Your task to perform on an android device: Open Google Chrome and click the shortcut for Amazon.com Image 0: 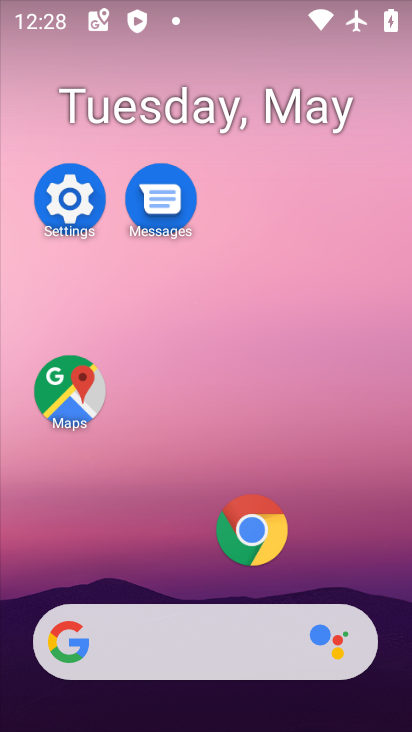
Step 0: click (253, 217)
Your task to perform on an android device: Open Google Chrome and click the shortcut for Amazon.com Image 1: 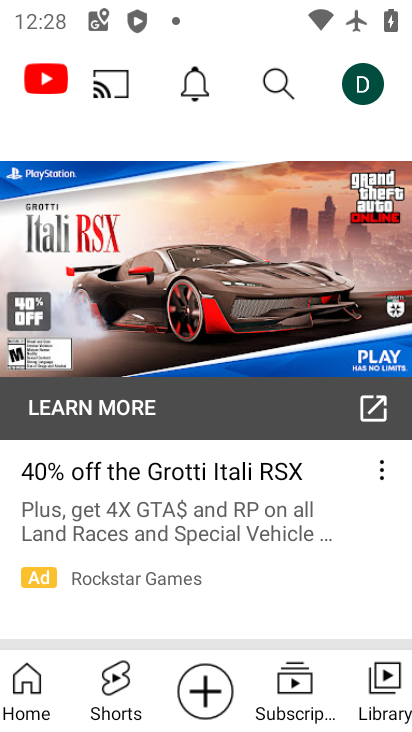
Step 1: press home button
Your task to perform on an android device: Open Google Chrome and click the shortcut for Amazon.com Image 2: 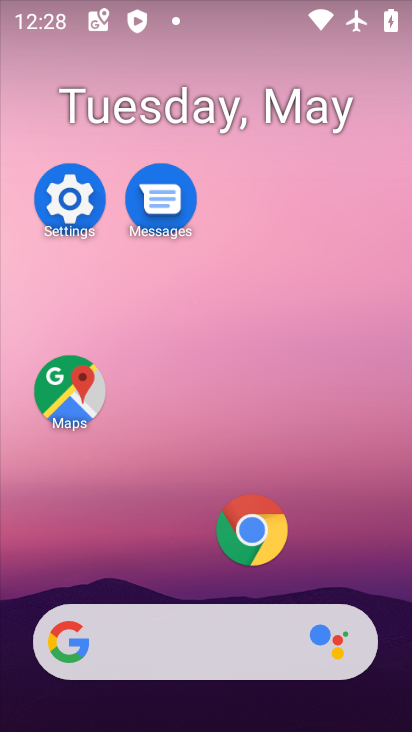
Step 2: drag from (207, 608) to (313, 166)
Your task to perform on an android device: Open Google Chrome and click the shortcut for Amazon.com Image 3: 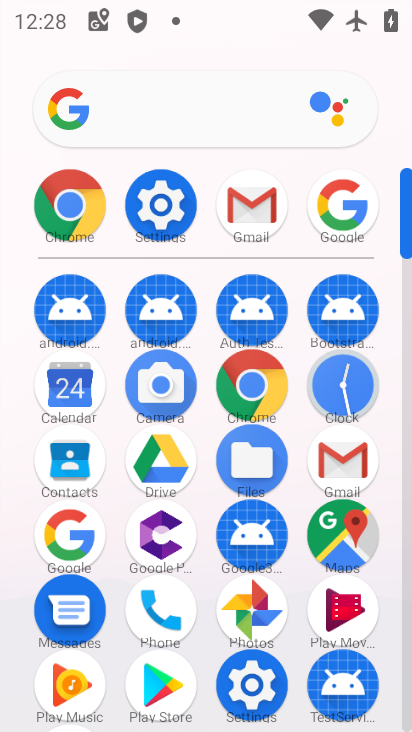
Step 3: click (277, 391)
Your task to perform on an android device: Open Google Chrome and click the shortcut for Amazon.com Image 4: 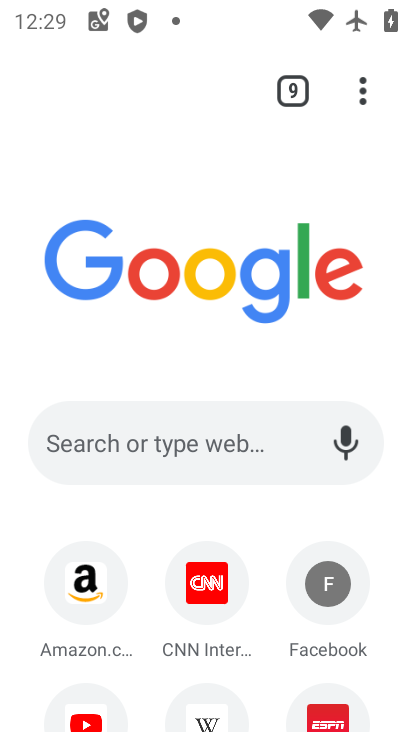
Step 4: click (82, 600)
Your task to perform on an android device: Open Google Chrome and click the shortcut for Amazon.com Image 5: 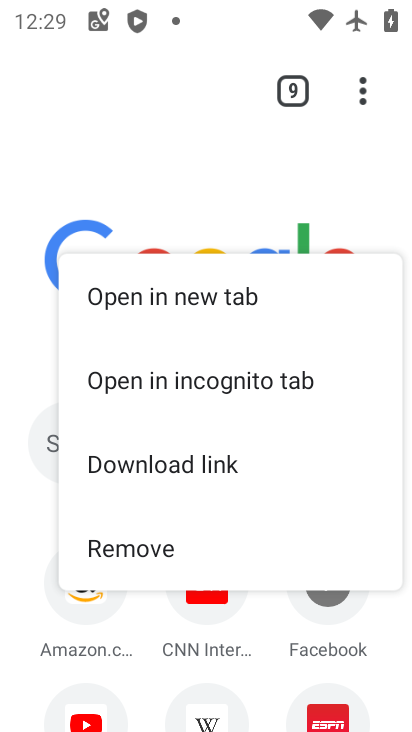
Step 5: click (77, 615)
Your task to perform on an android device: Open Google Chrome and click the shortcut for Amazon.com Image 6: 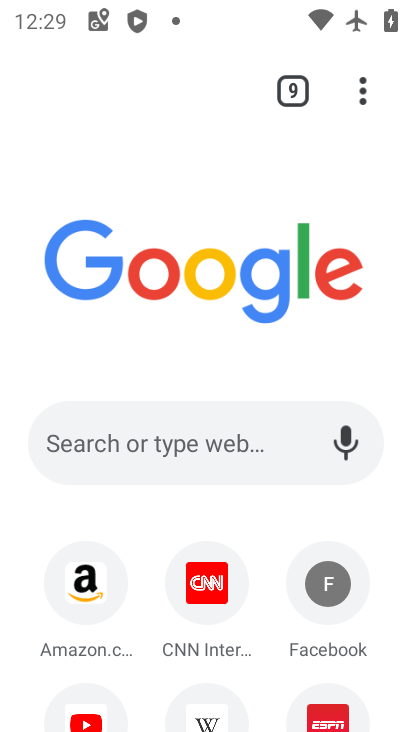
Step 6: click (78, 600)
Your task to perform on an android device: Open Google Chrome and click the shortcut for Amazon.com Image 7: 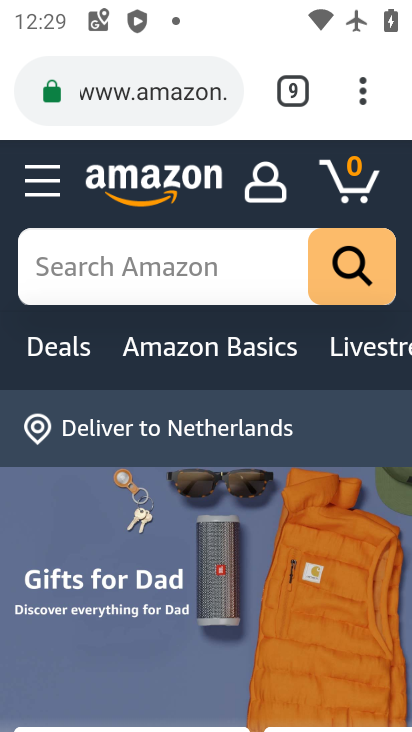
Step 7: task complete